Your task to perform on an android device: Open Chrome and go to settings Image 0: 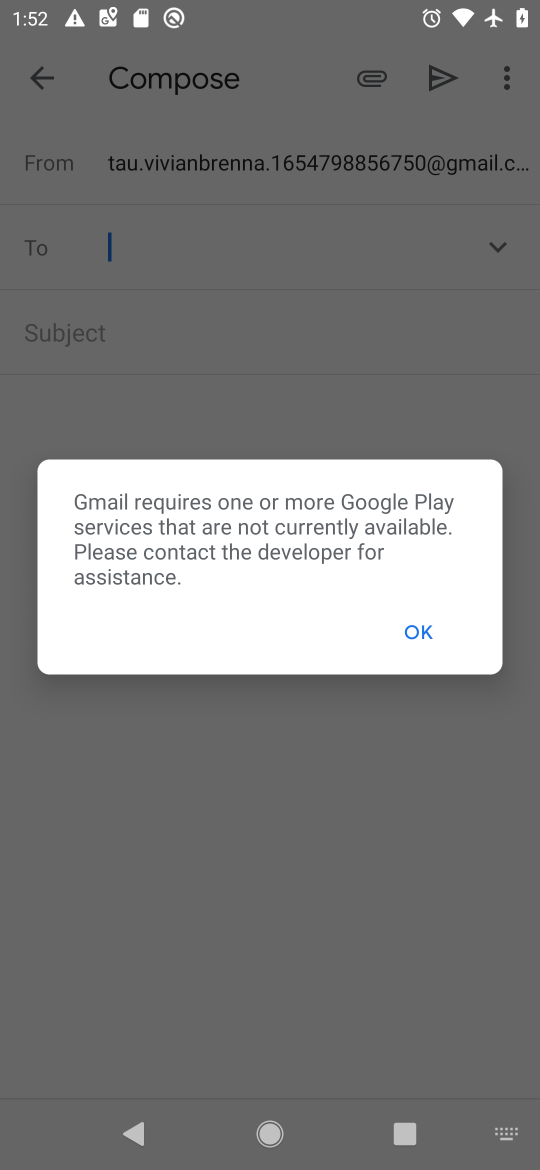
Step 0: press home button
Your task to perform on an android device: Open Chrome and go to settings Image 1: 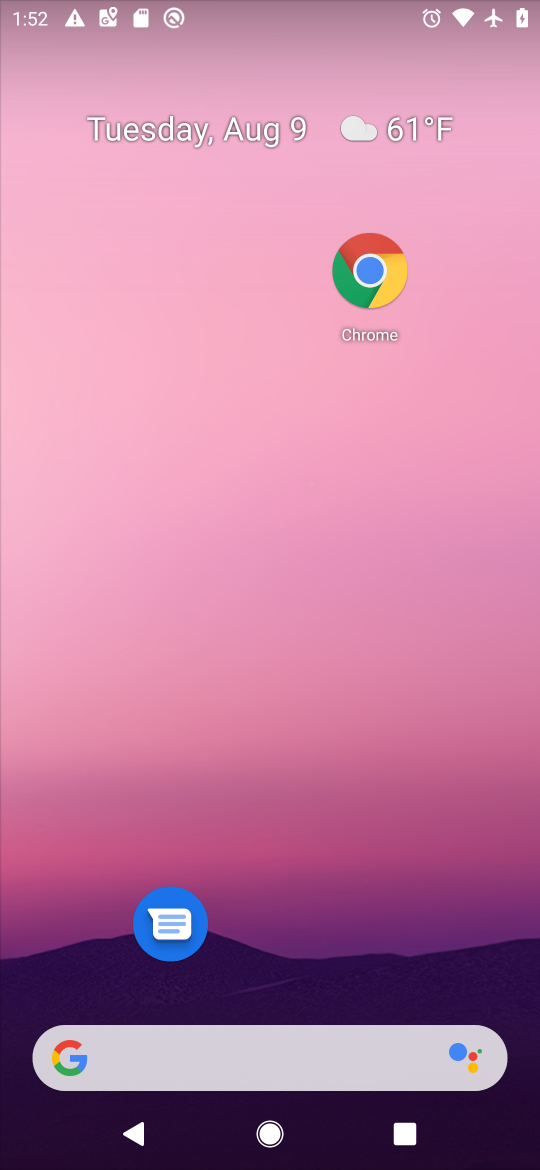
Step 1: click (347, 296)
Your task to perform on an android device: Open Chrome and go to settings Image 2: 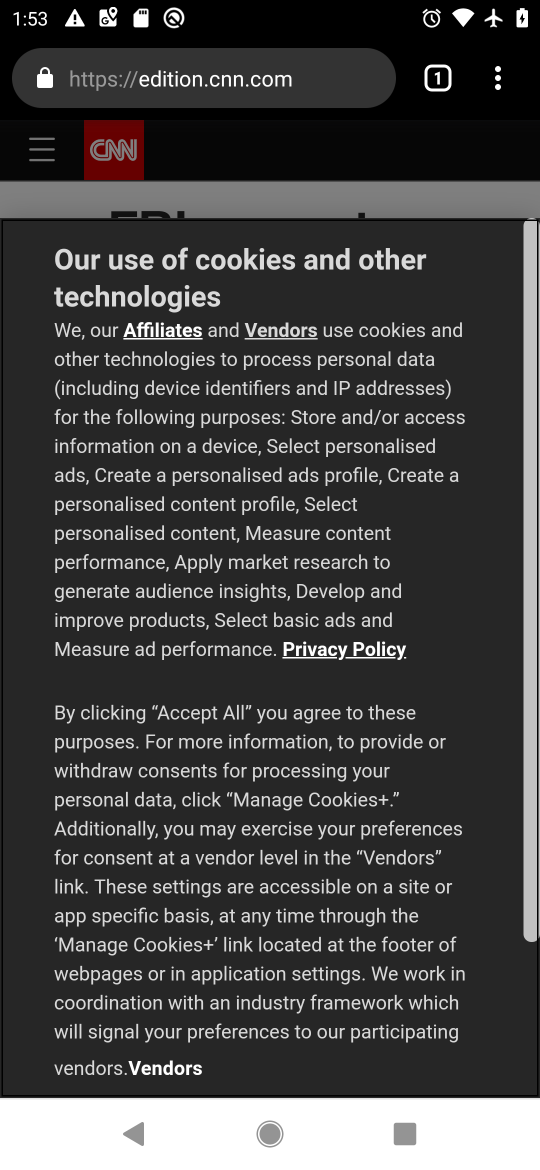
Step 2: task complete